Your task to perform on an android device: set an alarm Image 0: 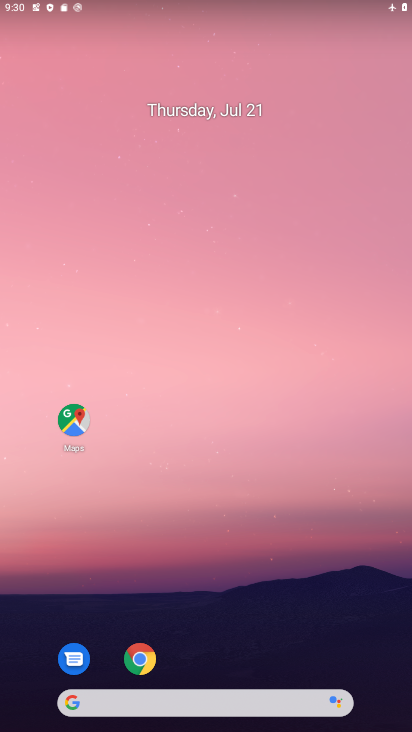
Step 0: drag from (249, 671) to (235, 58)
Your task to perform on an android device: set an alarm Image 1: 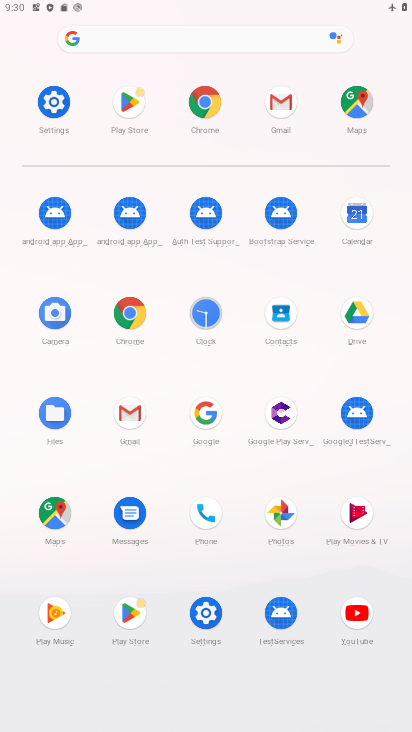
Step 1: click (206, 315)
Your task to perform on an android device: set an alarm Image 2: 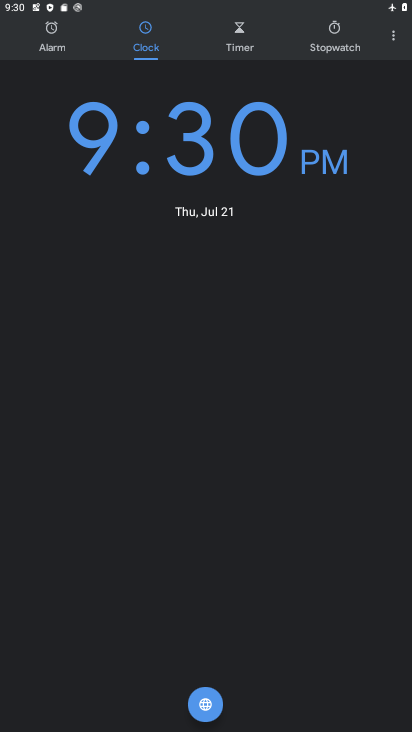
Step 2: click (45, 42)
Your task to perform on an android device: set an alarm Image 3: 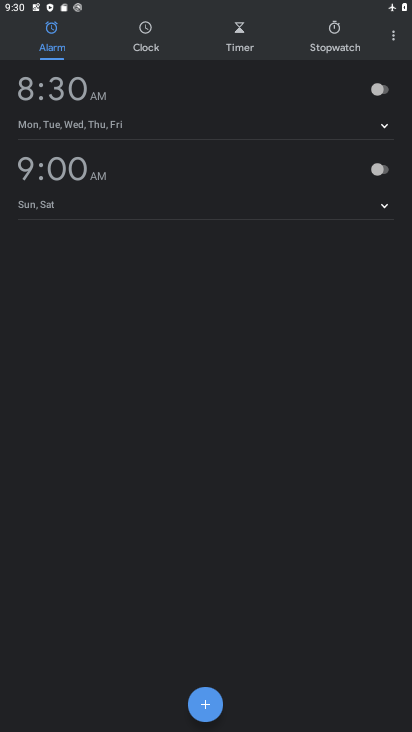
Step 3: click (207, 711)
Your task to perform on an android device: set an alarm Image 4: 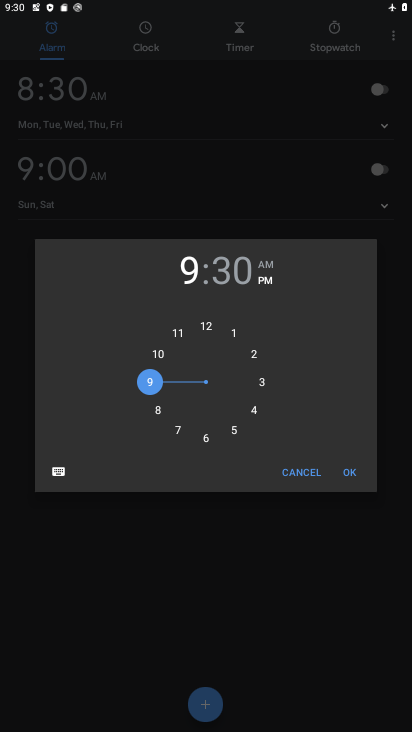
Step 4: click (345, 483)
Your task to perform on an android device: set an alarm Image 5: 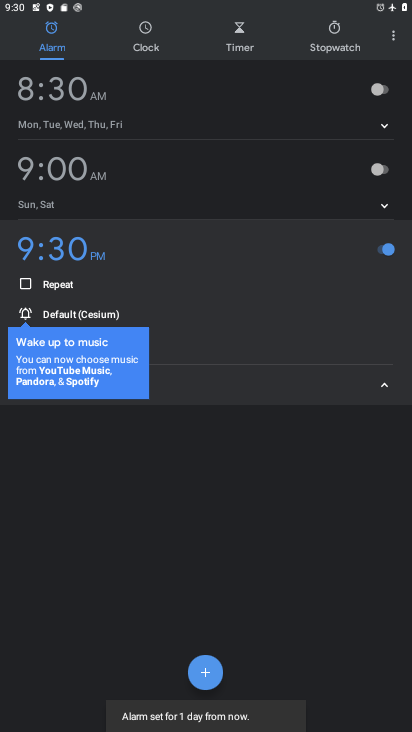
Step 5: task complete